Your task to perform on an android device: Open battery settings Image 0: 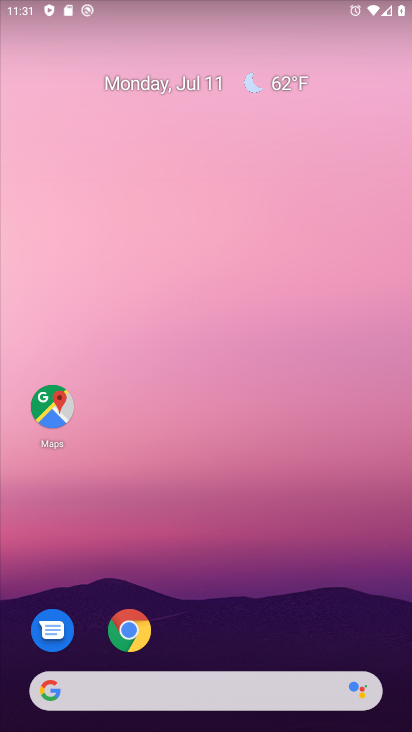
Step 0: drag from (295, 582) to (287, 11)
Your task to perform on an android device: Open battery settings Image 1: 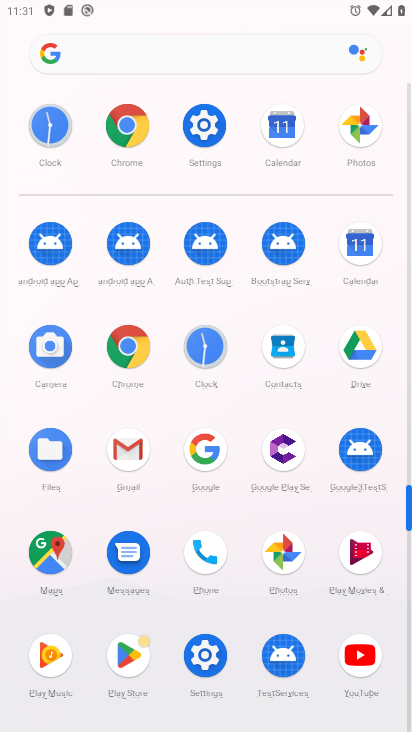
Step 1: click (211, 130)
Your task to perform on an android device: Open battery settings Image 2: 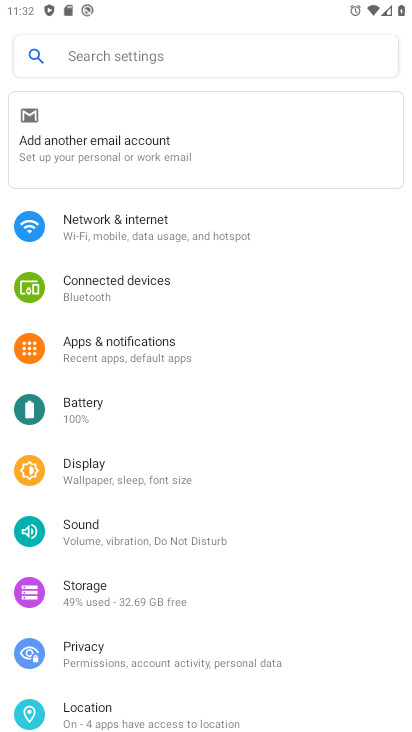
Step 2: click (92, 405)
Your task to perform on an android device: Open battery settings Image 3: 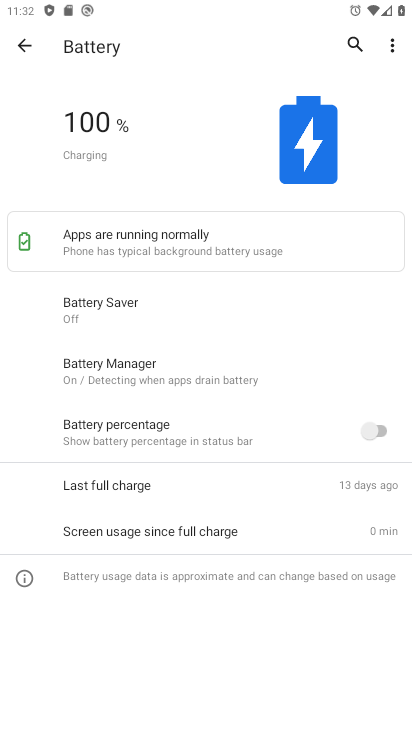
Step 3: task complete